Your task to perform on an android device: star an email in the gmail app Image 0: 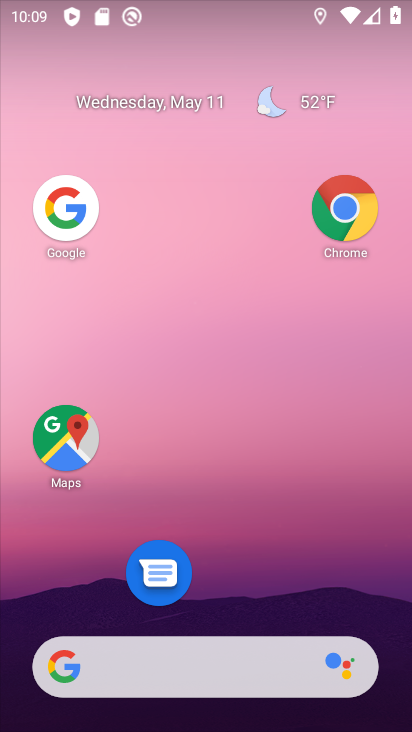
Step 0: drag from (171, 628) to (128, 100)
Your task to perform on an android device: star an email in the gmail app Image 1: 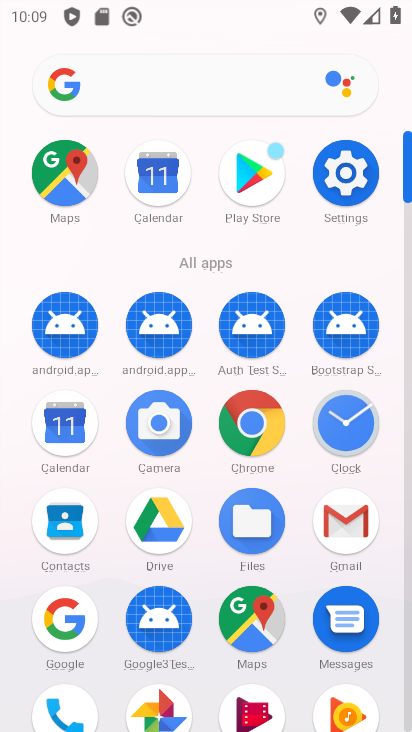
Step 1: click (361, 534)
Your task to perform on an android device: star an email in the gmail app Image 2: 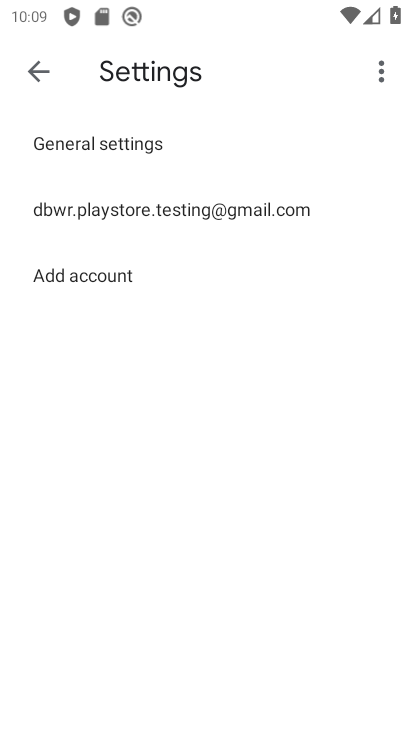
Step 2: click (35, 52)
Your task to perform on an android device: star an email in the gmail app Image 3: 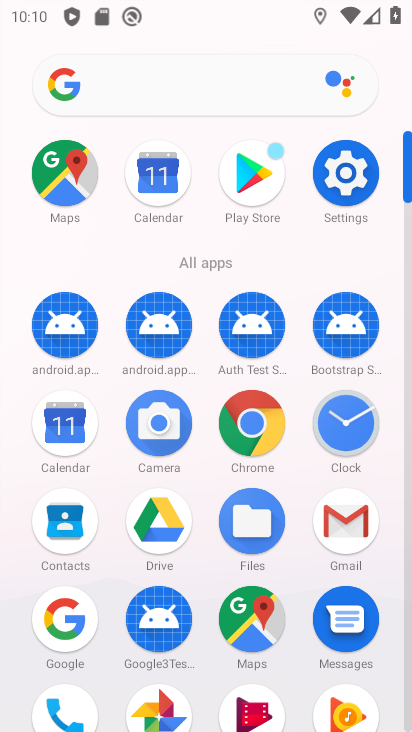
Step 3: click (350, 519)
Your task to perform on an android device: star an email in the gmail app Image 4: 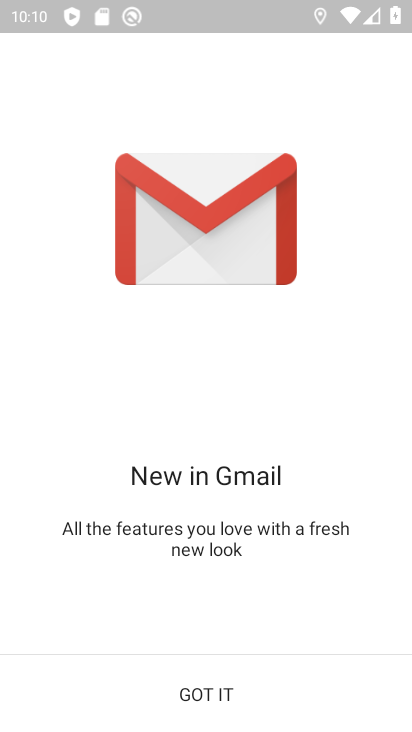
Step 4: click (262, 684)
Your task to perform on an android device: star an email in the gmail app Image 5: 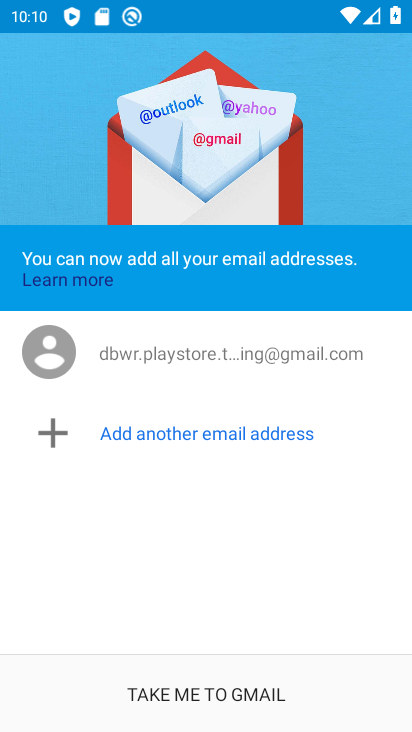
Step 5: click (262, 684)
Your task to perform on an android device: star an email in the gmail app Image 6: 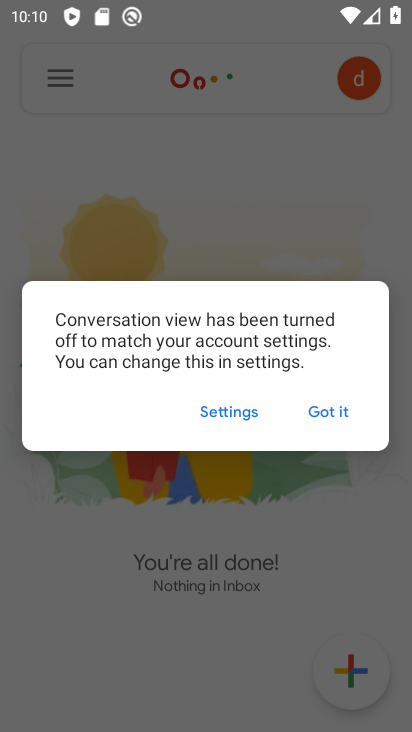
Step 6: click (324, 408)
Your task to perform on an android device: star an email in the gmail app Image 7: 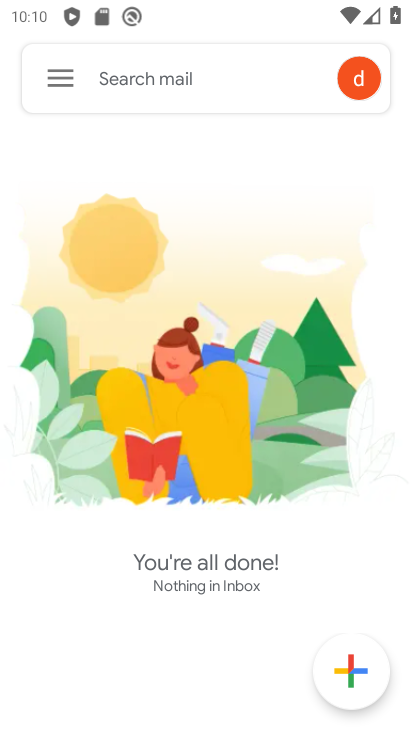
Step 7: task complete